Your task to perform on an android device: Go to notification settings Image 0: 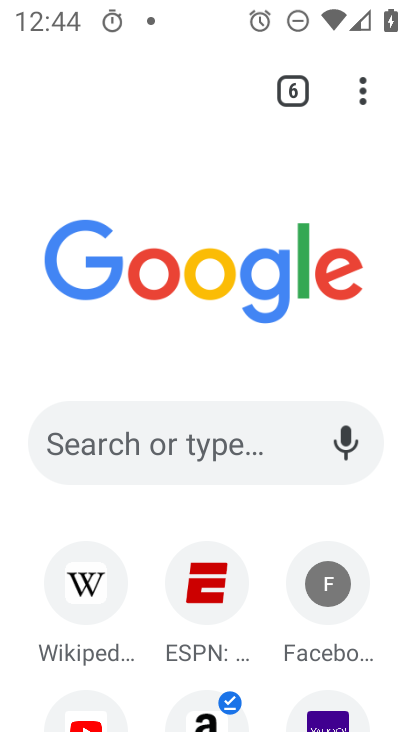
Step 0: press home button
Your task to perform on an android device: Go to notification settings Image 1: 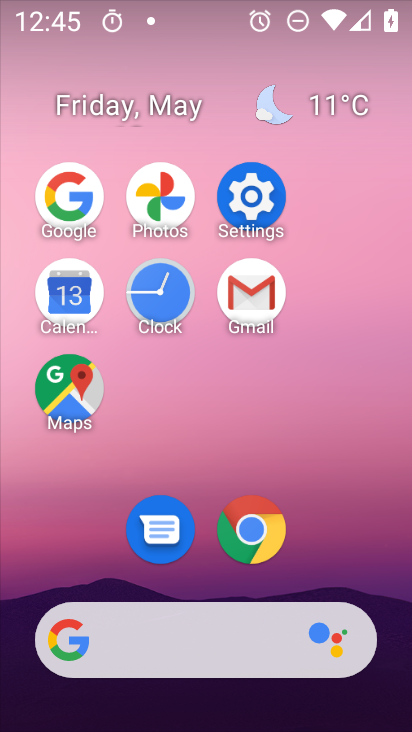
Step 1: click (248, 202)
Your task to perform on an android device: Go to notification settings Image 2: 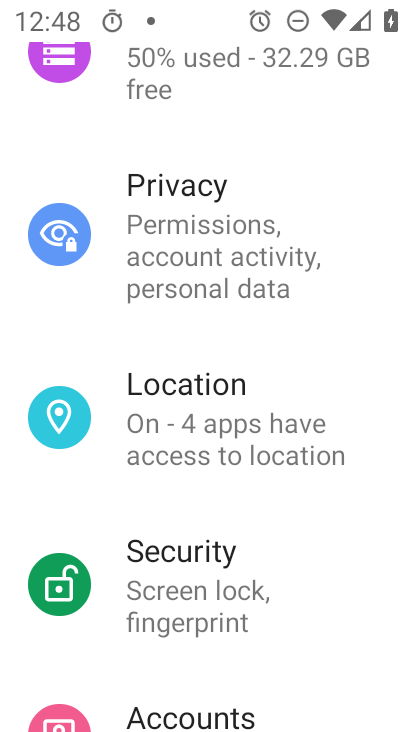
Step 2: drag from (274, 191) to (295, 604)
Your task to perform on an android device: Go to notification settings Image 3: 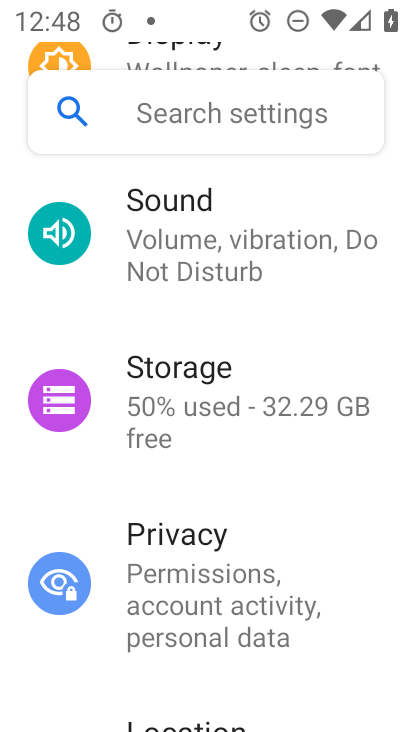
Step 3: drag from (252, 226) to (242, 634)
Your task to perform on an android device: Go to notification settings Image 4: 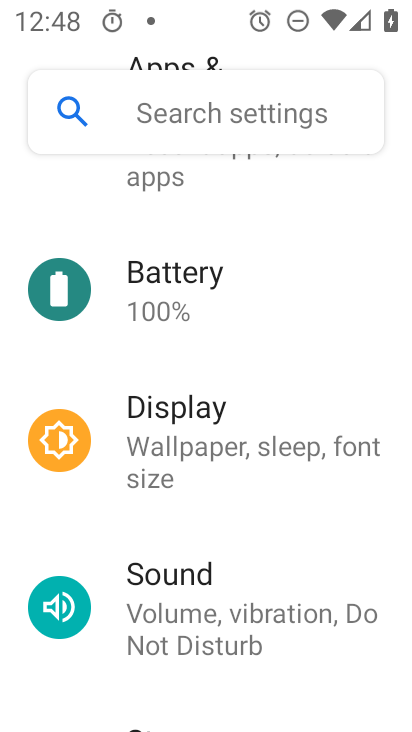
Step 4: drag from (259, 209) to (221, 642)
Your task to perform on an android device: Go to notification settings Image 5: 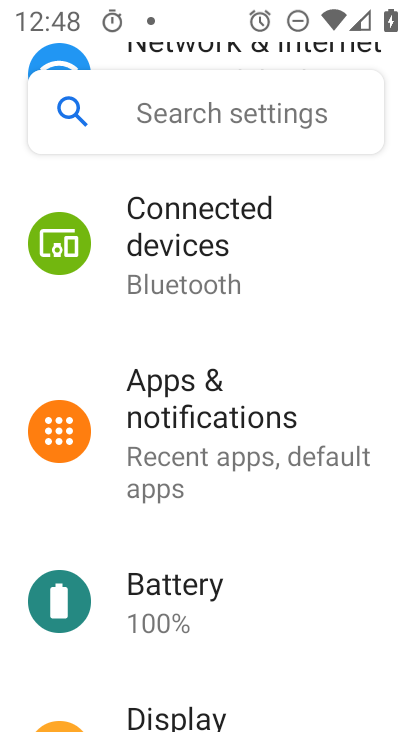
Step 5: click (251, 433)
Your task to perform on an android device: Go to notification settings Image 6: 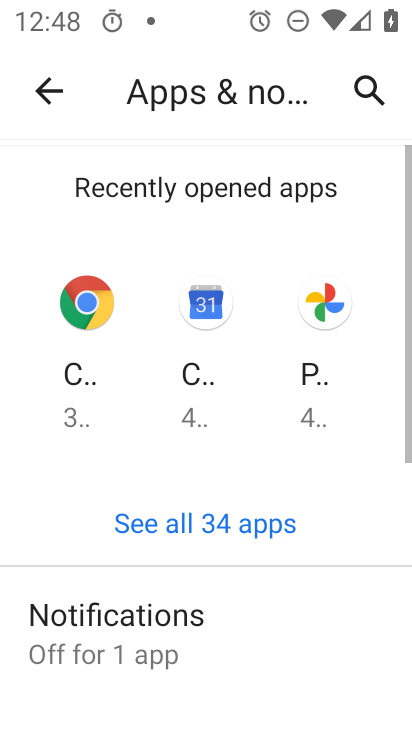
Step 6: task complete